Your task to perform on an android device: visit the assistant section in the google photos Image 0: 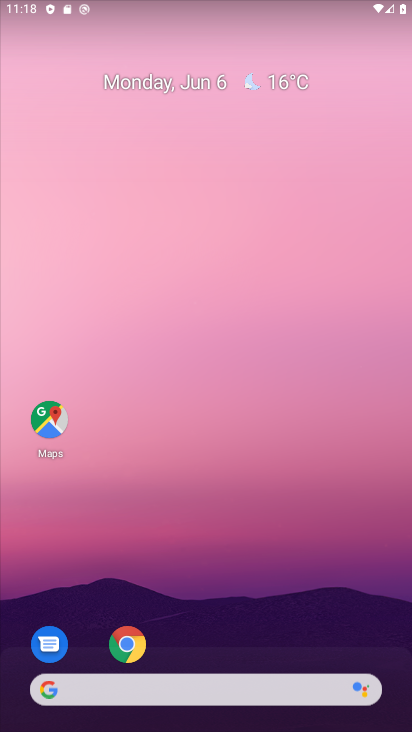
Step 0: drag from (217, 618) to (296, 287)
Your task to perform on an android device: visit the assistant section in the google photos Image 1: 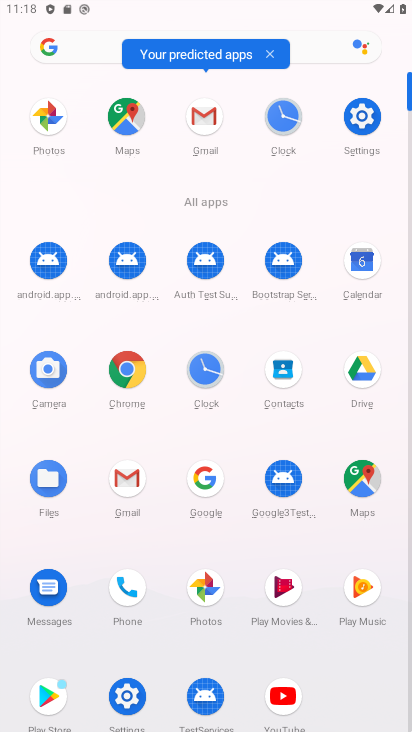
Step 1: click (203, 606)
Your task to perform on an android device: visit the assistant section in the google photos Image 2: 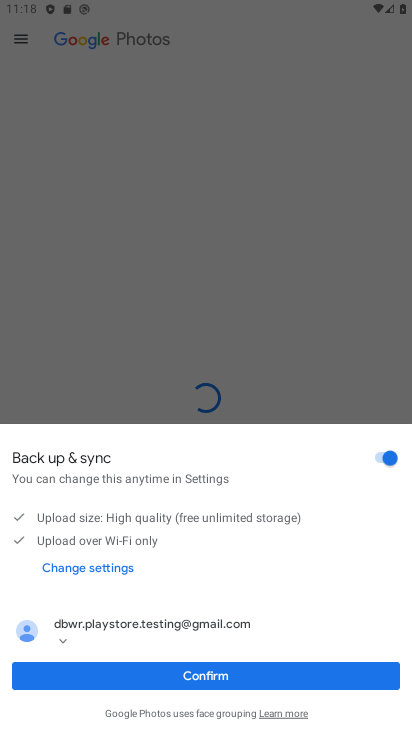
Step 2: click (233, 676)
Your task to perform on an android device: visit the assistant section in the google photos Image 3: 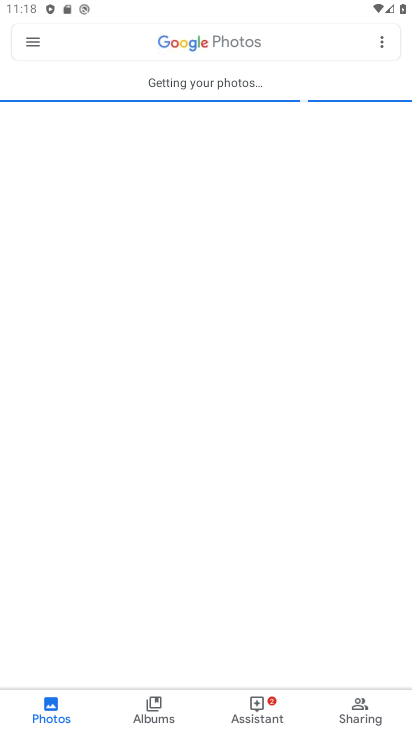
Step 3: click (269, 715)
Your task to perform on an android device: visit the assistant section in the google photos Image 4: 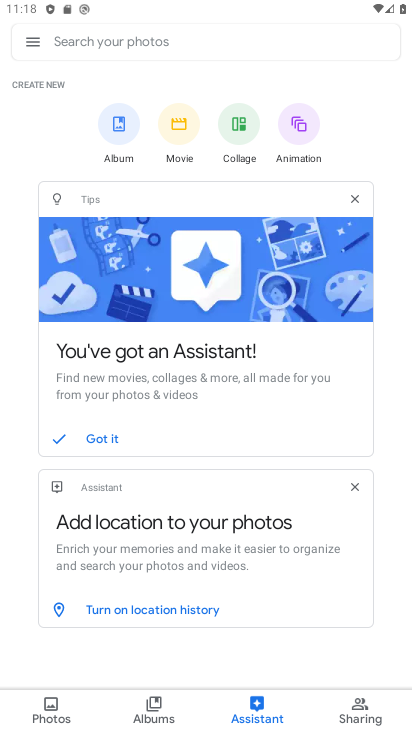
Step 4: task complete